Your task to perform on an android device: Show me popular games on the Play Store Image 0: 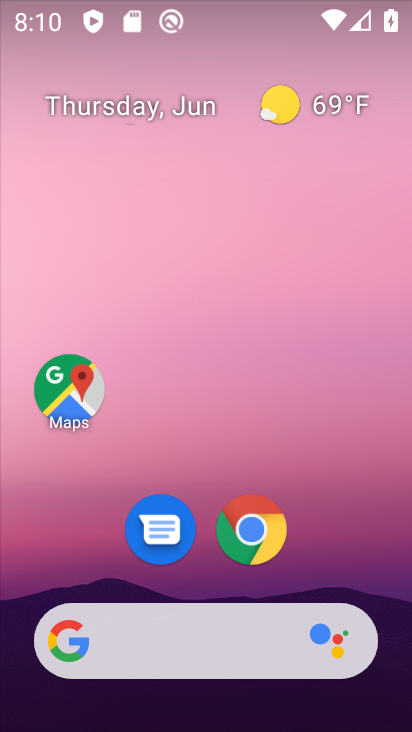
Step 0: drag from (210, 586) to (143, 103)
Your task to perform on an android device: Show me popular games on the Play Store Image 1: 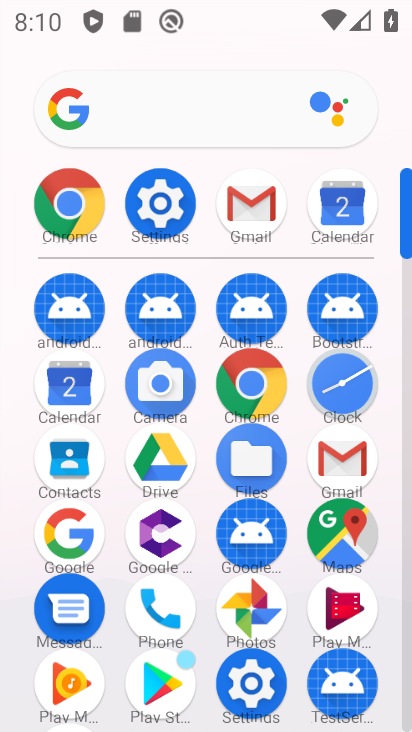
Step 1: click (178, 677)
Your task to perform on an android device: Show me popular games on the Play Store Image 2: 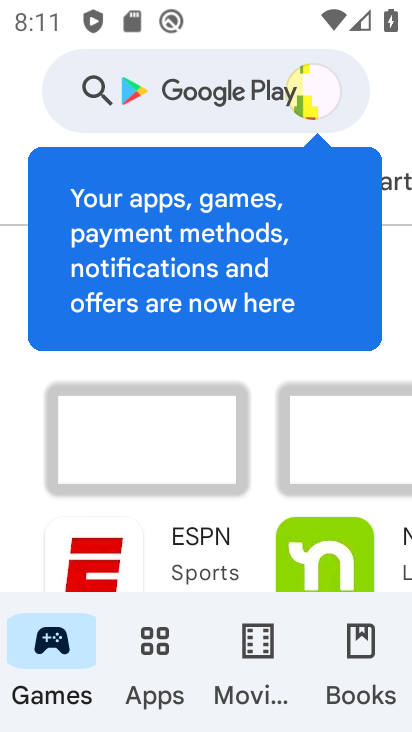
Step 2: drag from (110, 546) to (8, 140)
Your task to perform on an android device: Show me popular games on the Play Store Image 3: 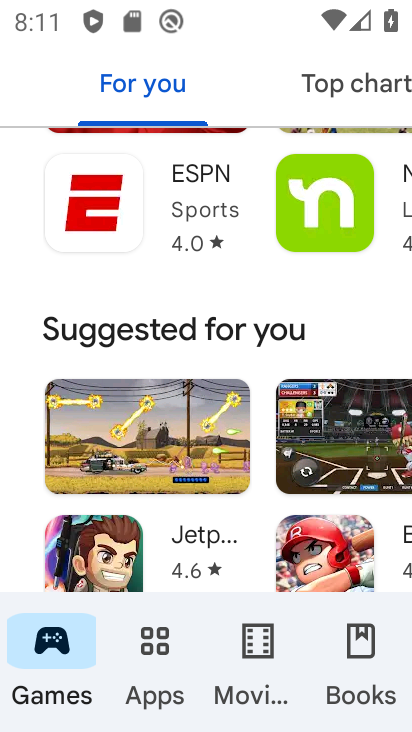
Step 3: drag from (123, 491) to (55, 49)
Your task to perform on an android device: Show me popular games on the Play Store Image 4: 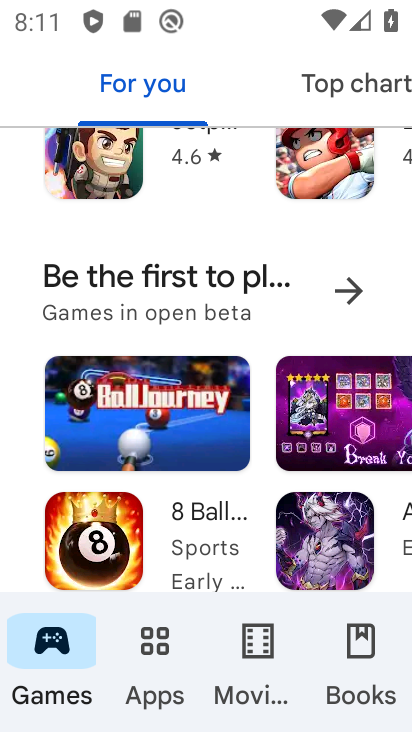
Step 4: drag from (205, 478) to (165, 107)
Your task to perform on an android device: Show me popular games on the Play Store Image 5: 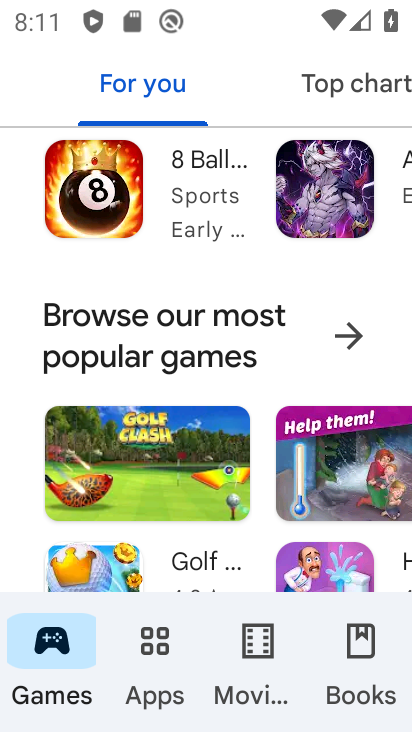
Step 5: click (339, 343)
Your task to perform on an android device: Show me popular games on the Play Store Image 6: 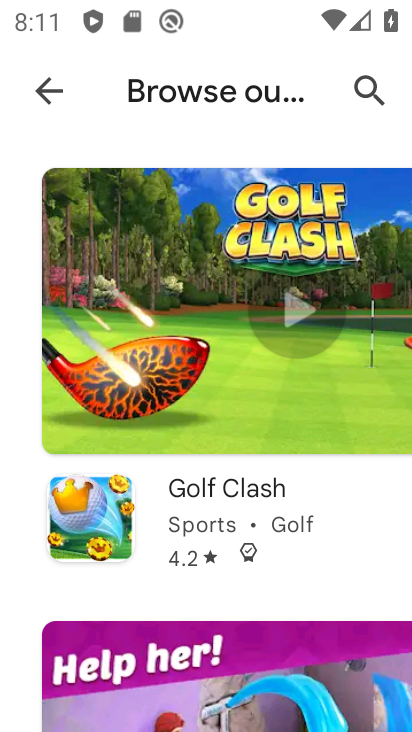
Step 6: task complete